Your task to perform on an android device: open a bookmark in the chrome app Image 0: 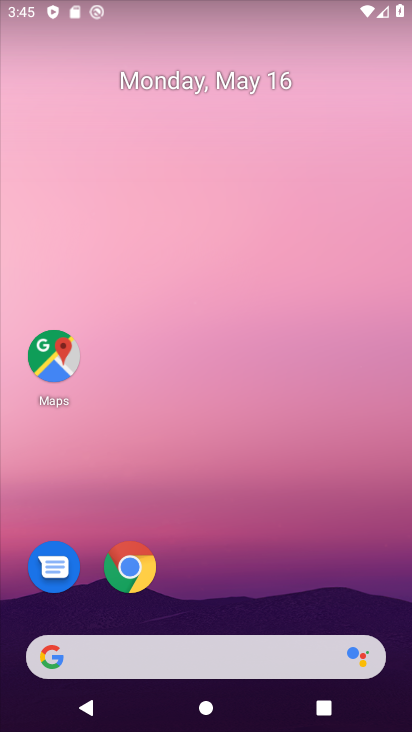
Step 0: drag from (268, 631) to (319, 8)
Your task to perform on an android device: open a bookmark in the chrome app Image 1: 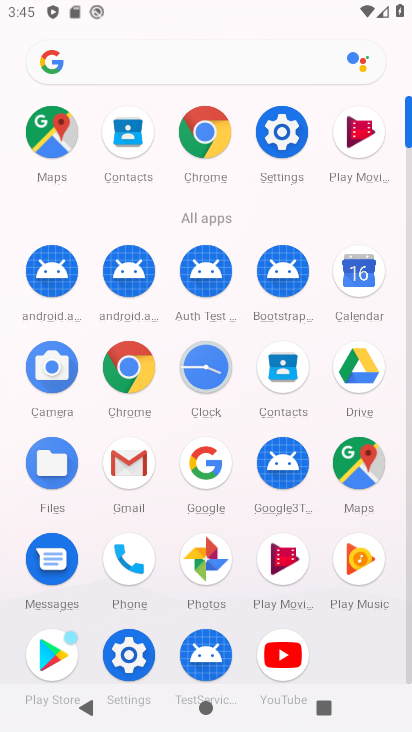
Step 1: click (129, 364)
Your task to perform on an android device: open a bookmark in the chrome app Image 2: 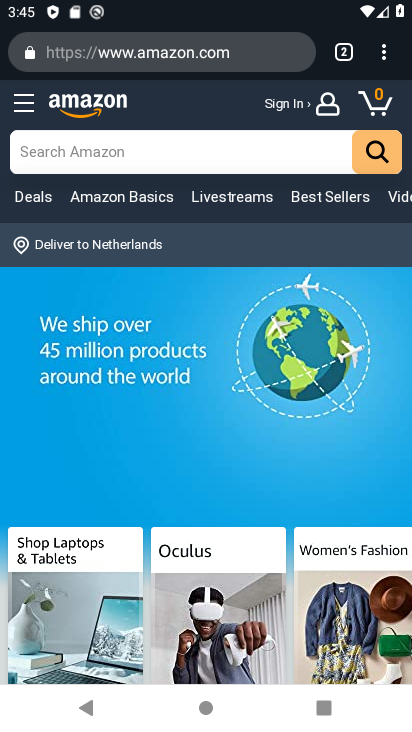
Step 2: drag from (382, 49) to (243, 243)
Your task to perform on an android device: open a bookmark in the chrome app Image 3: 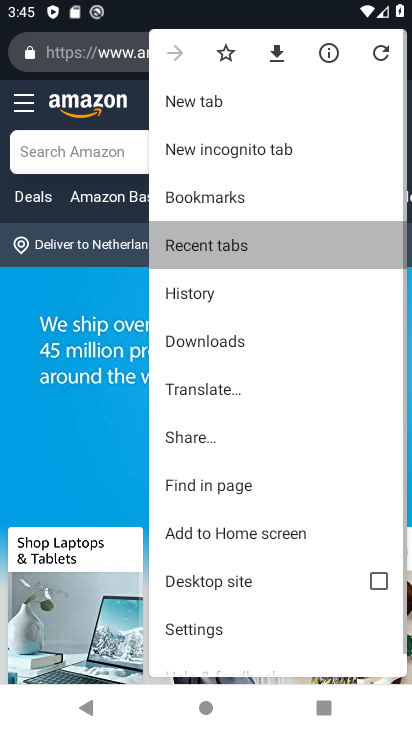
Step 3: click (215, 207)
Your task to perform on an android device: open a bookmark in the chrome app Image 4: 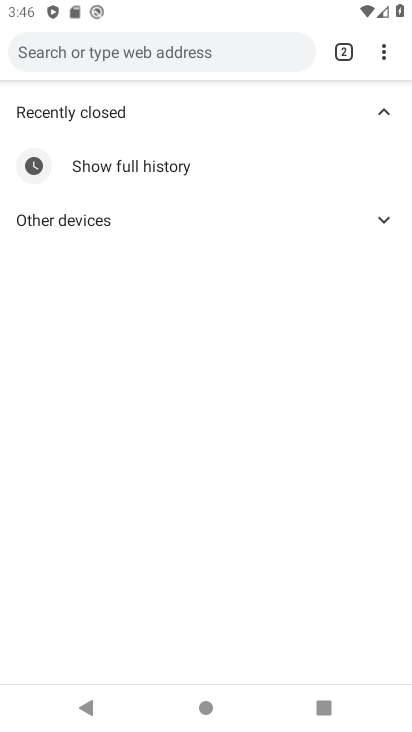
Step 4: press back button
Your task to perform on an android device: open a bookmark in the chrome app Image 5: 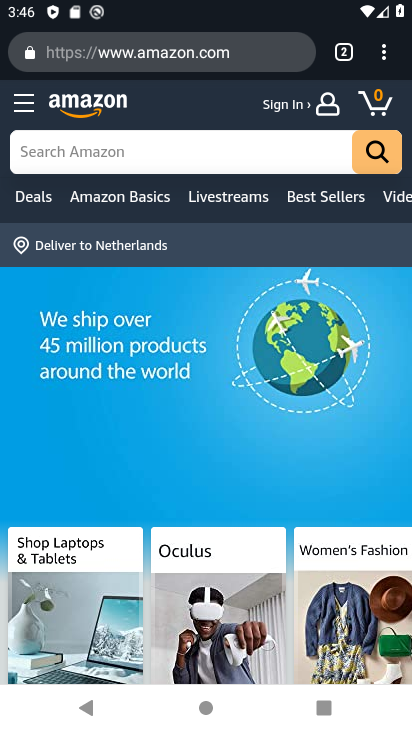
Step 5: click (381, 61)
Your task to perform on an android device: open a bookmark in the chrome app Image 6: 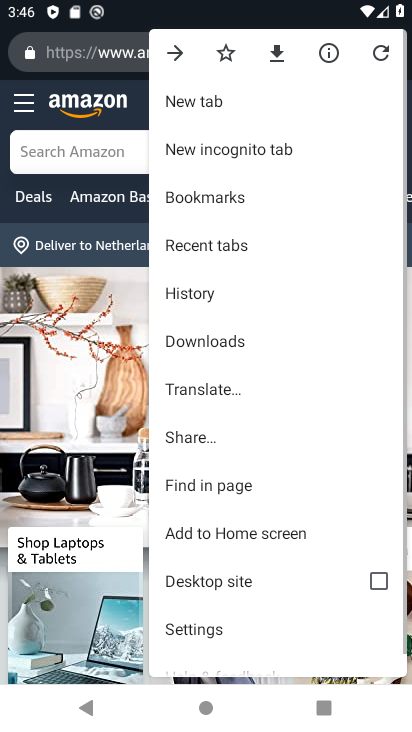
Step 6: click (271, 192)
Your task to perform on an android device: open a bookmark in the chrome app Image 7: 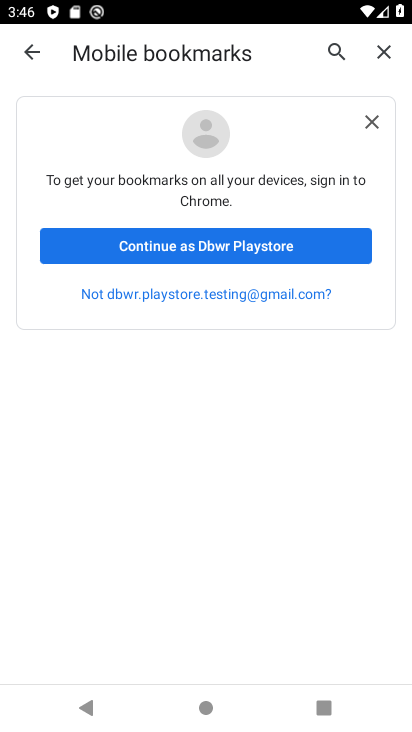
Step 7: task complete